Your task to perform on an android device: Open display settings Image 0: 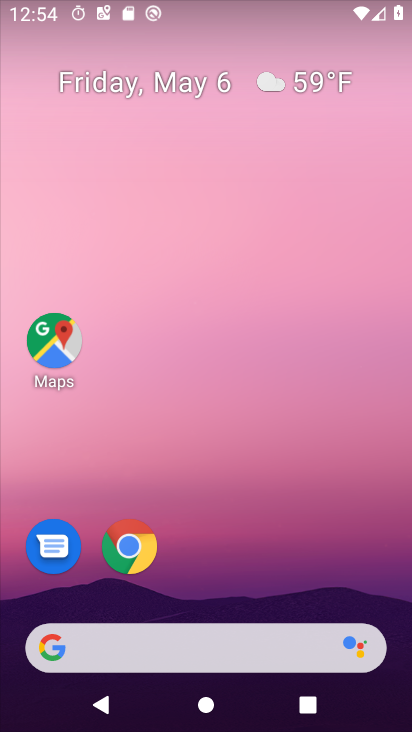
Step 0: click (131, 555)
Your task to perform on an android device: Open display settings Image 1: 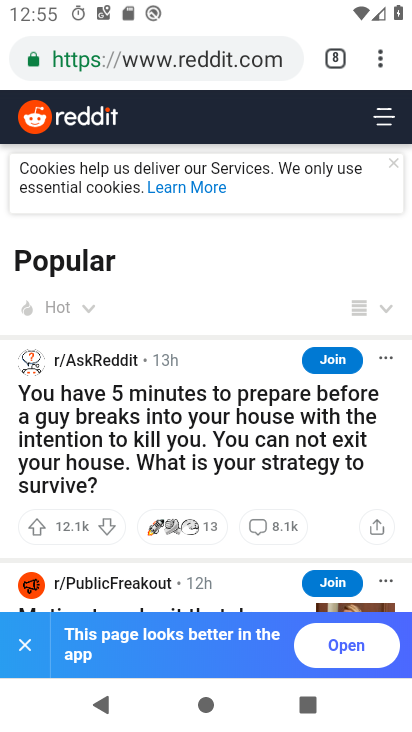
Step 1: press home button
Your task to perform on an android device: Open display settings Image 2: 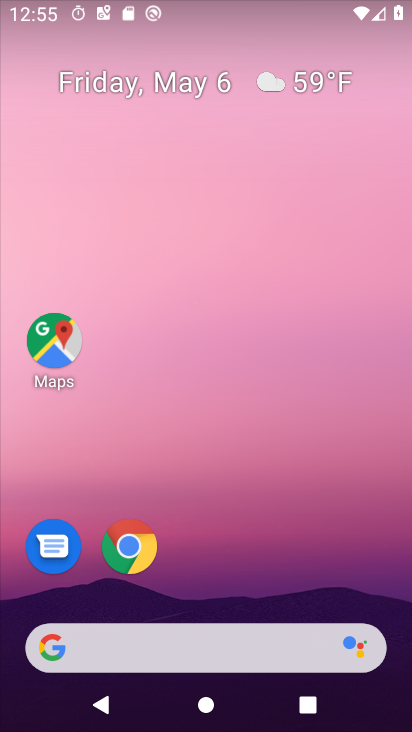
Step 2: drag from (345, 410) to (325, 66)
Your task to perform on an android device: Open display settings Image 3: 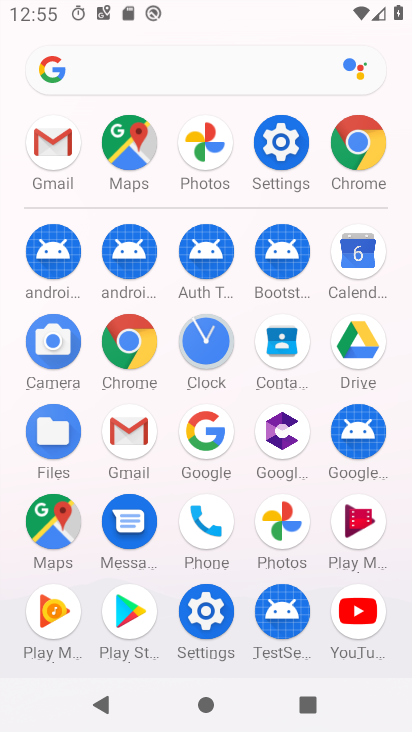
Step 3: click (280, 137)
Your task to perform on an android device: Open display settings Image 4: 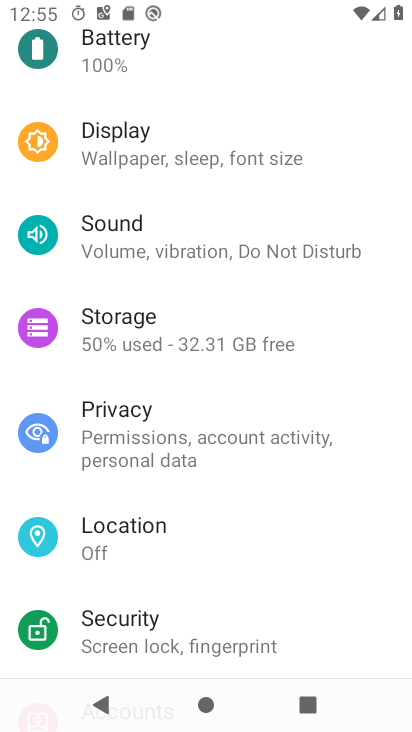
Step 4: click (197, 151)
Your task to perform on an android device: Open display settings Image 5: 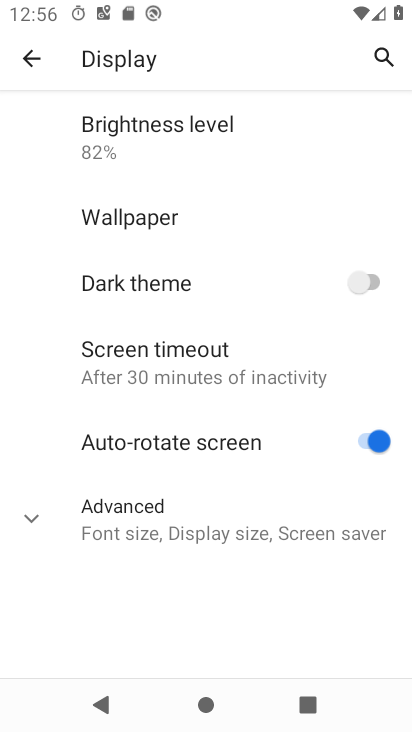
Step 5: task complete